Your task to perform on an android device: turn on javascript in the chrome app Image 0: 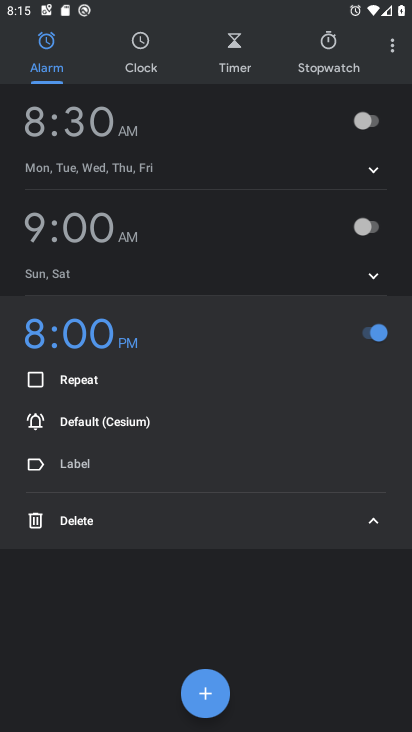
Step 0: press home button
Your task to perform on an android device: turn on javascript in the chrome app Image 1: 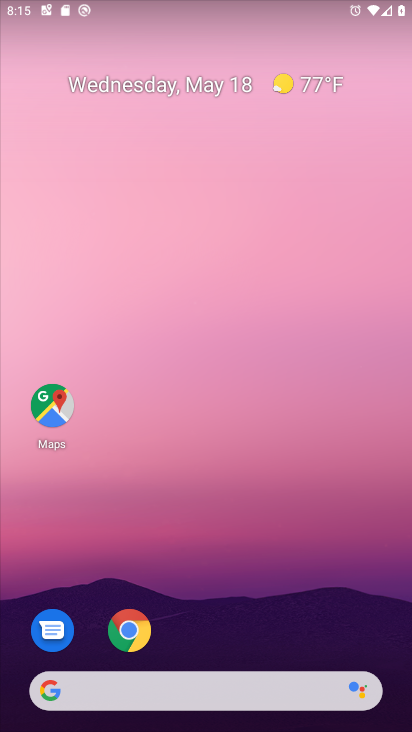
Step 1: click (134, 626)
Your task to perform on an android device: turn on javascript in the chrome app Image 2: 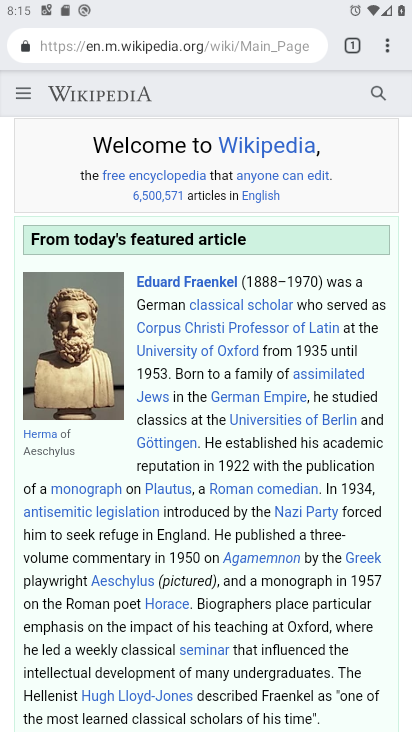
Step 2: drag from (387, 44) to (205, 549)
Your task to perform on an android device: turn on javascript in the chrome app Image 3: 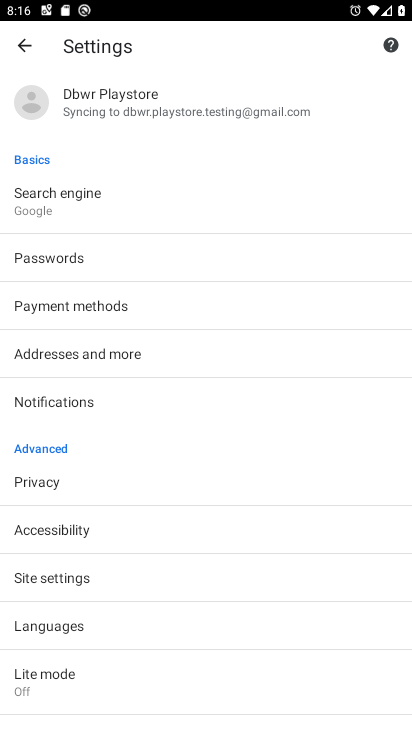
Step 3: click (55, 584)
Your task to perform on an android device: turn on javascript in the chrome app Image 4: 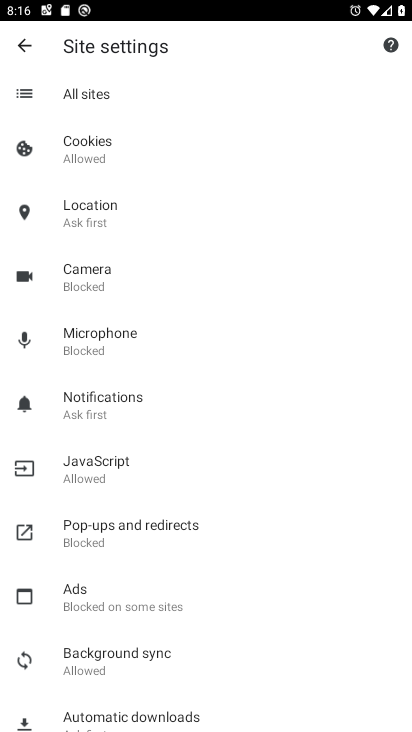
Step 4: click (98, 476)
Your task to perform on an android device: turn on javascript in the chrome app Image 5: 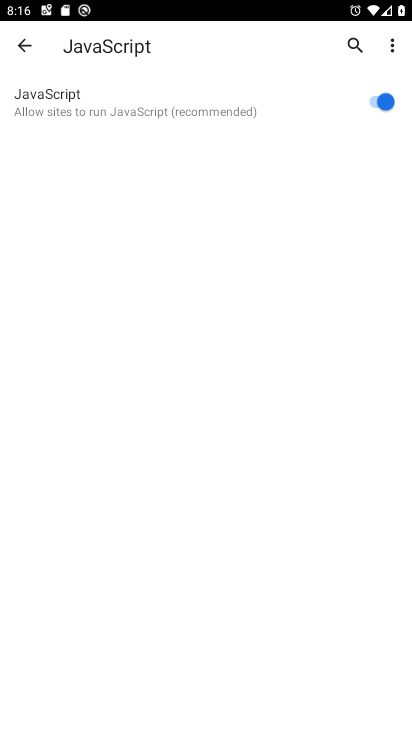
Step 5: task complete